Your task to perform on an android device: turn off data saver in the chrome app Image 0: 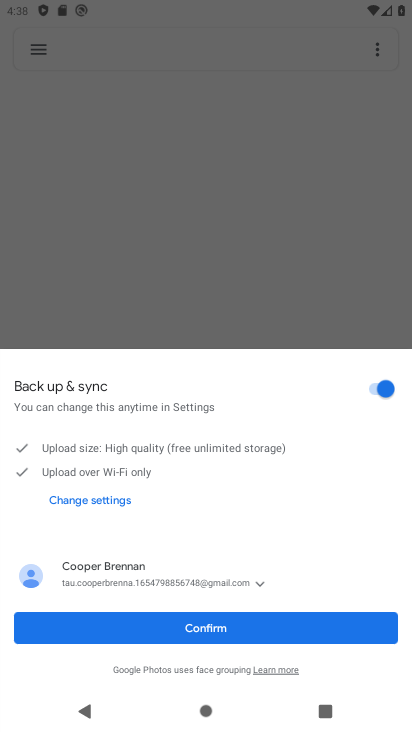
Step 0: press home button
Your task to perform on an android device: turn off data saver in the chrome app Image 1: 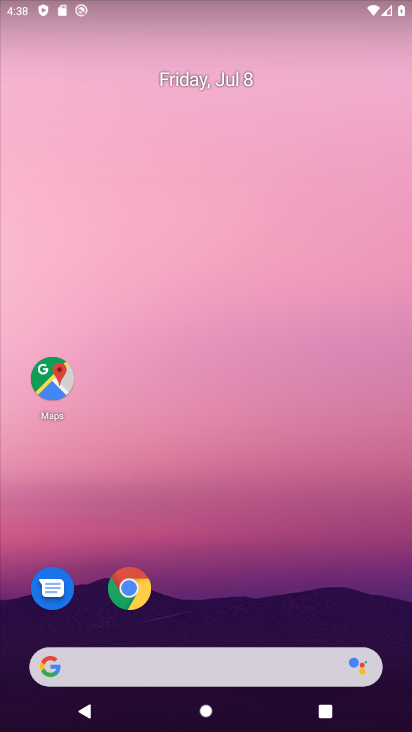
Step 1: click (137, 579)
Your task to perform on an android device: turn off data saver in the chrome app Image 2: 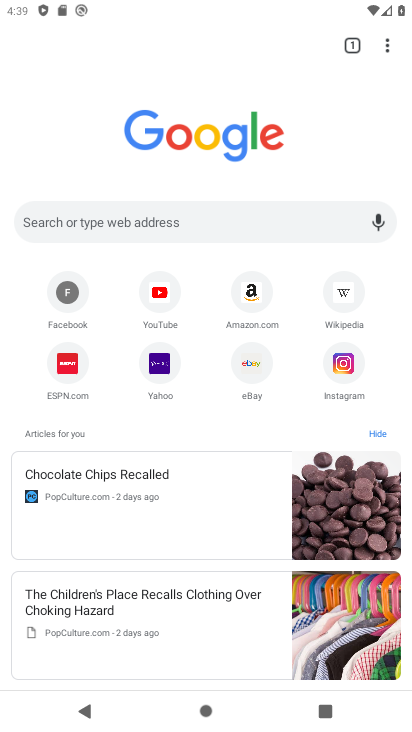
Step 2: click (386, 50)
Your task to perform on an android device: turn off data saver in the chrome app Image 3: 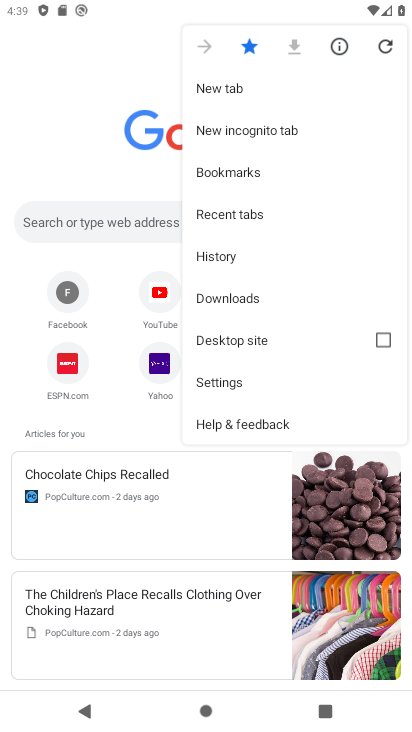
Step 3: click (293, 389)
Your task to perform on an android device: turn off data saver in the chrome app Image 4: 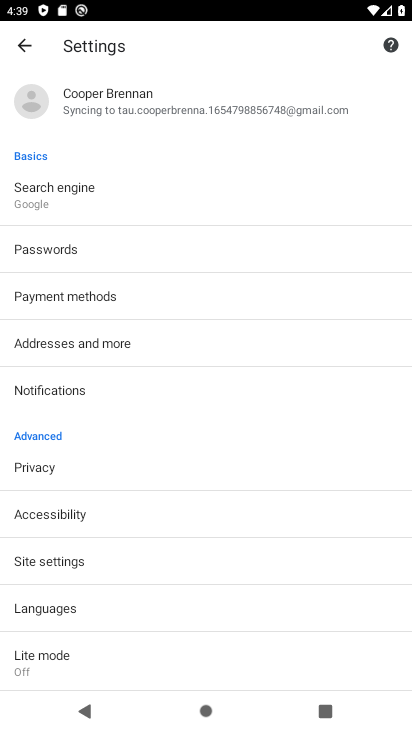
Step 4: drag from (272, 614) to (325, 130)
Your task to perform on an android device: turn off data saver in the chrome app Image 5: 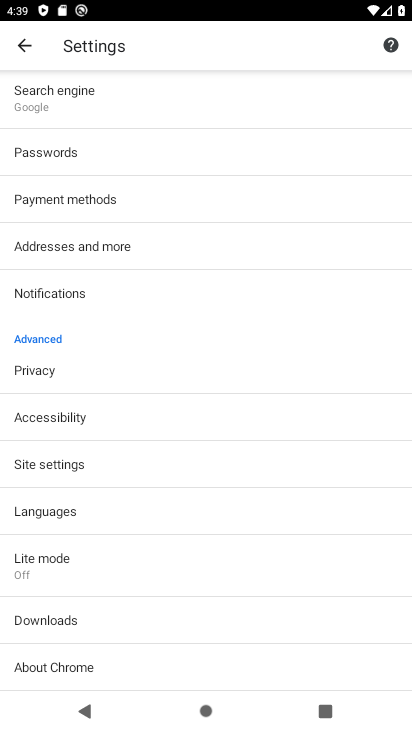
Step 5: click (137, 556)
Your task to perform on an android device: turn off data saver in the chrome app Image 6: 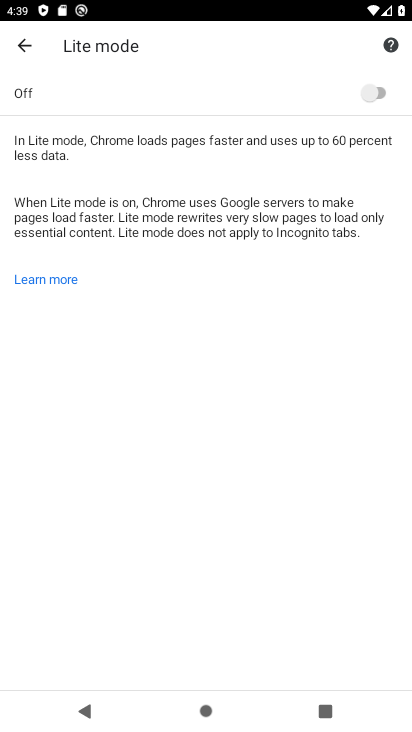
Step 6: click (20, 49)
Your task to perform on an android device: turn off data saver in the chrome app Image 7: 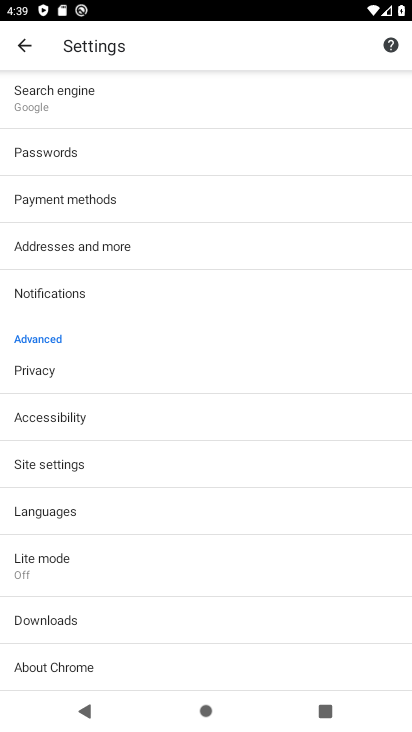
Step 7: drag from (137, 207) to (207, 689)
Your task to perform on an android device: turn off data saver in the chrome app Image 8: 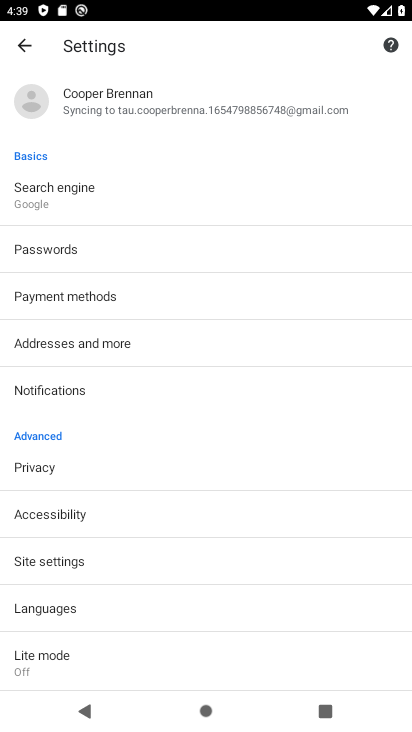
Step 8: drag from (94, 418) to (176, 134)
Your task to perform on an android device: turn off data saver in the chrome app Image 9: 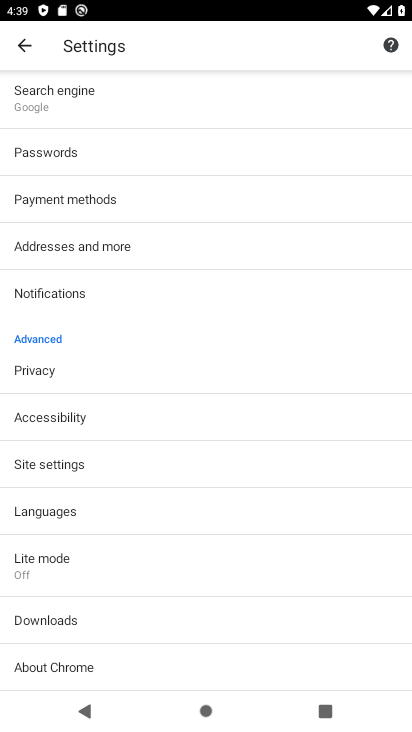
Step 9: drag from (114, 638) to (191, 293)
Your task to perform on an android device: turn off data saver in the chrome app Image 10: 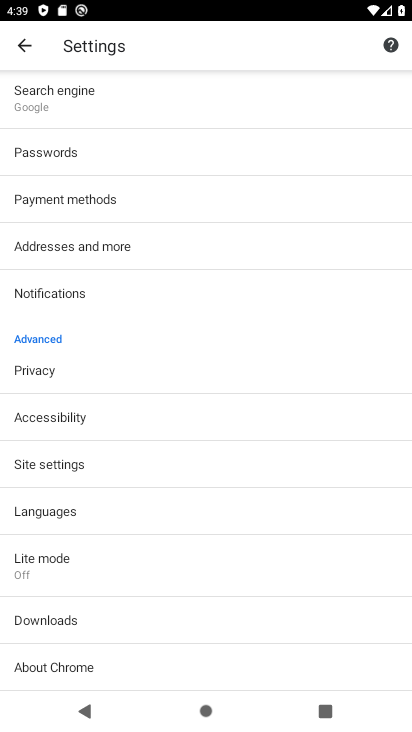
Step 10: drag from (97, 225) to (161, 664)
Your task to perform on an android device: turn off data saver in the chrome app Image 11: 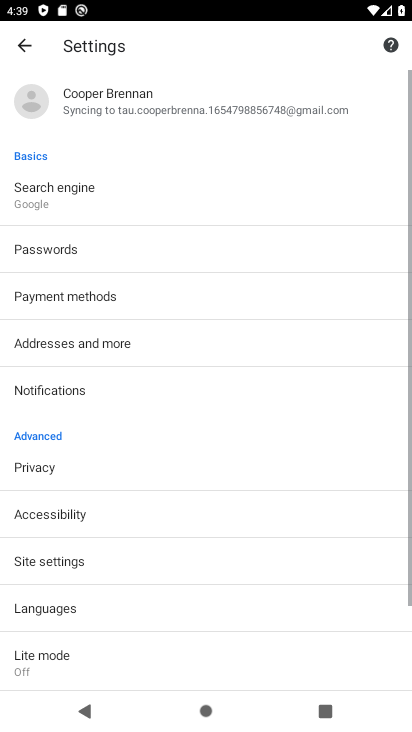
Step 11: drag from (391, 484) to (402, 10)
Your task to perform on an android device: turn off data saver in the chrome app Image 12: 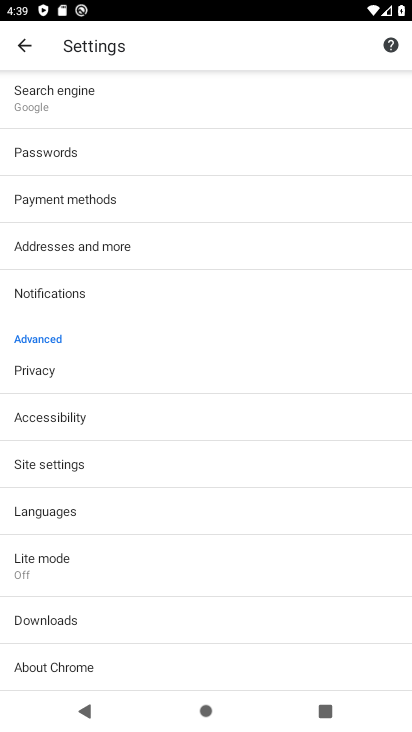
Step 12: click (218, 574)
Your task to perform on an android device: turn off data saver in the chrome app Image 13: 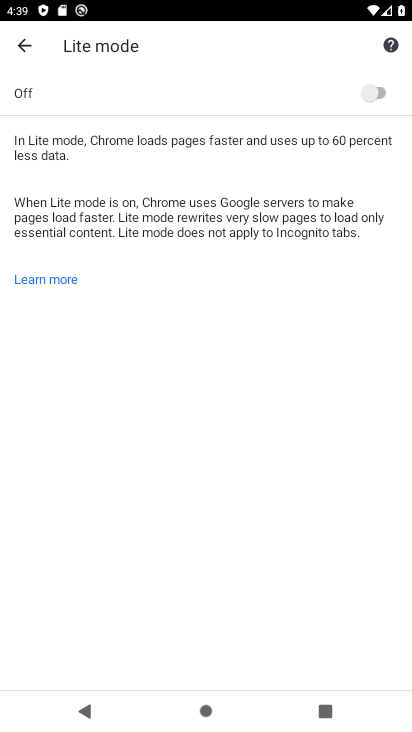
Step 13: click (378, 91)
Your task to perform on an android device: turn off data saver in the chrome app Image 14: 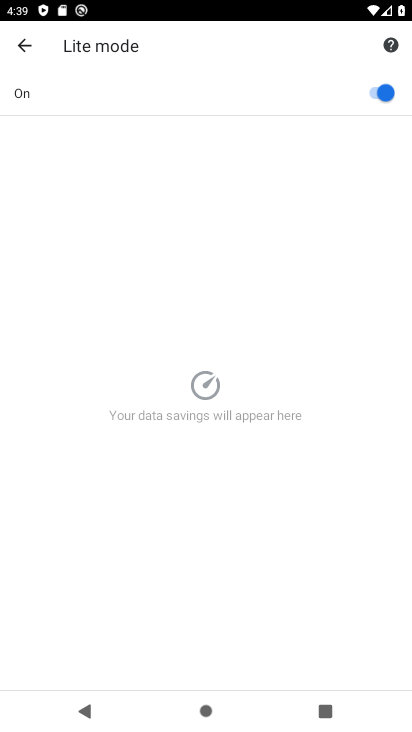
Step 14: click (378, 91)
Your task to perform on an android device: turn off data saver in the chrome app Image 15: 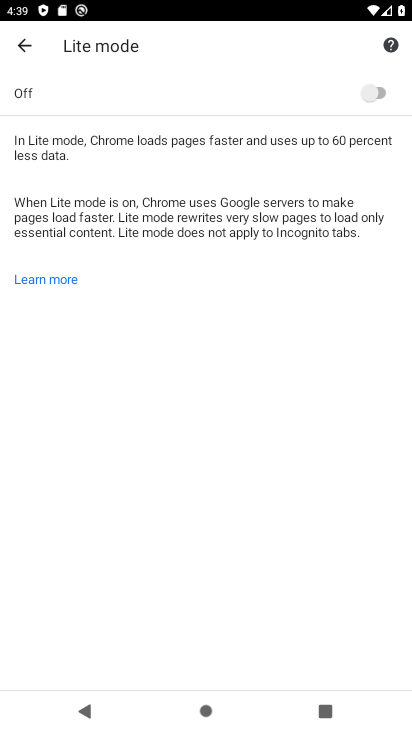
Step 15: click (24, 49)
Your task to perform on an android device: turn off data saver in the chrome app Image 16: 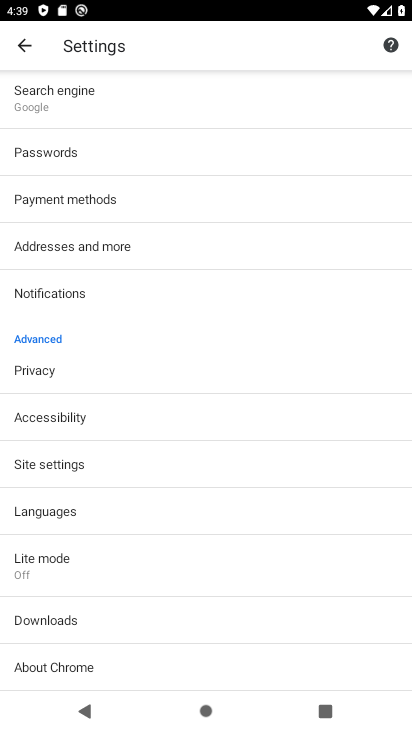
Step 16: task complete